Your task to perform on an android device: check data usage Image 0: 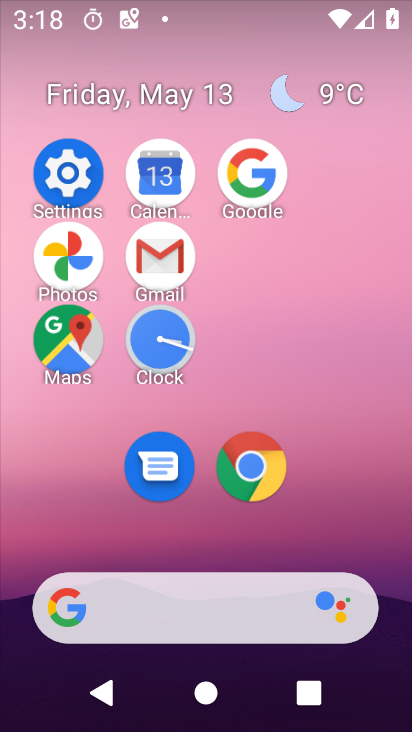
Step 0: click (79, 181)
Your task to perform on an android device: check data usage Image 1: 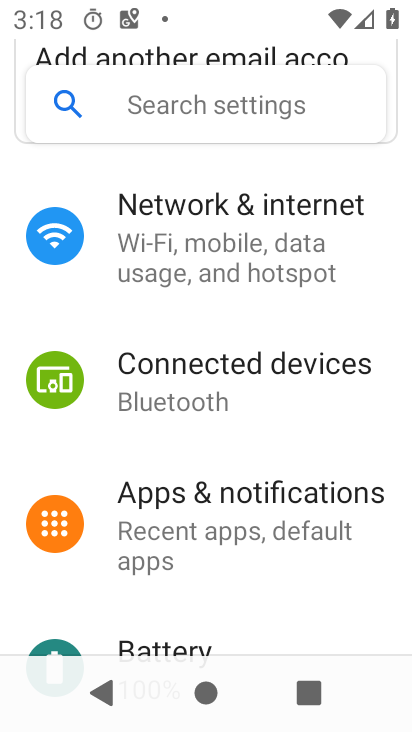
Step 1: click (318, 268)
Your task to perform on an android device: check data usage Image 2: 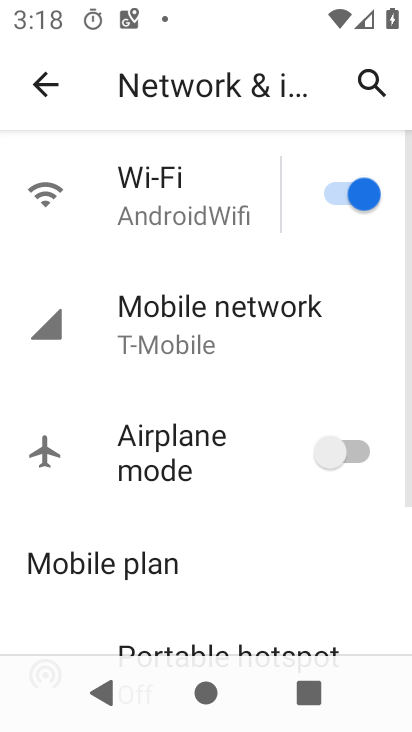
Step 2: click (127, 307)
Your task to perform on an android device: check data usage Image 3: 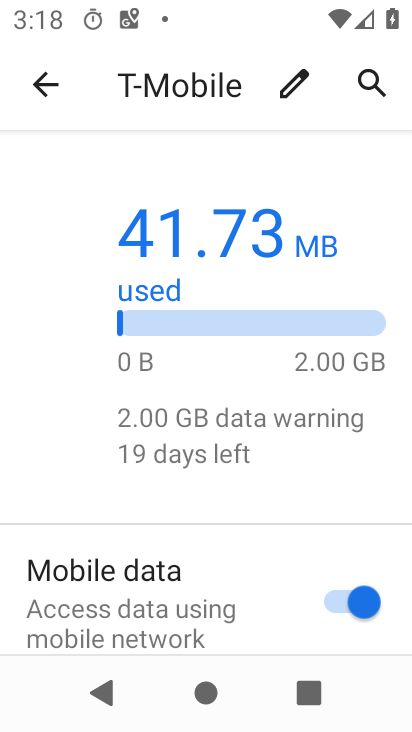
Step 3: task complete